Your task to perform on an android device: Go to wifi settings Image 0: 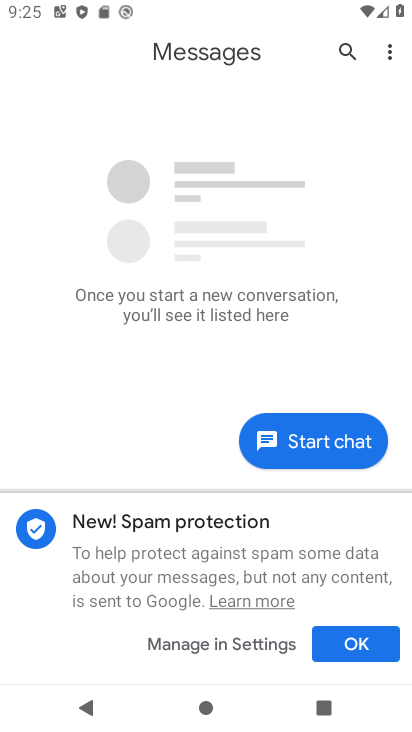
Step 0: press home button
Your task to perform on an android device: Go to wifi settings Image 1: 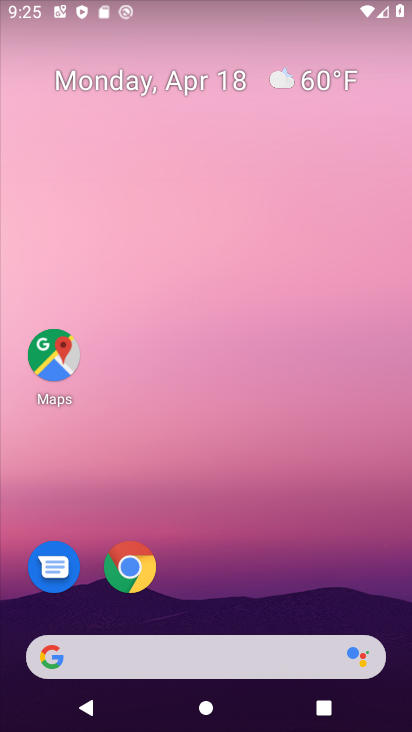
Step 1: drag from (216, 517) to (245, 6)
Your task to perform on an android device: Go to wifi settings Image 2: 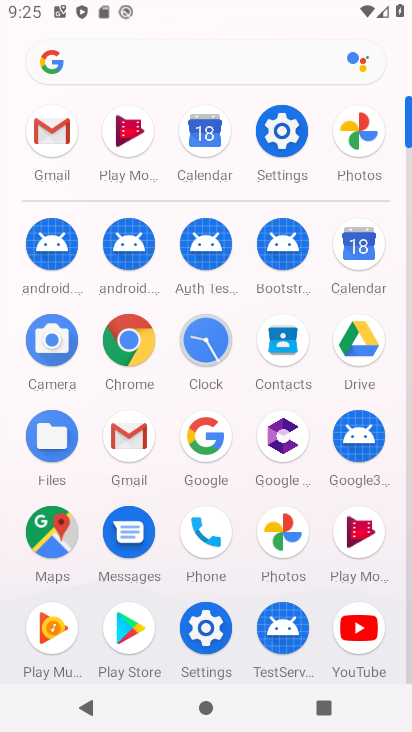
Step 2: click (284, 140)
Your task to perform on an android device: Go to wifi settings Image 3: 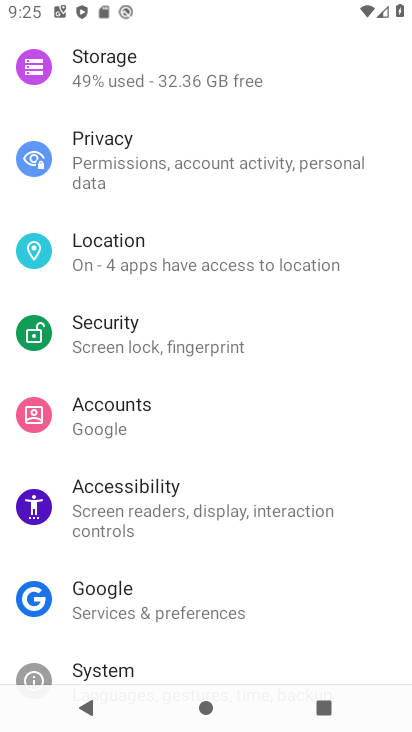
Step 3: drag from (281, 153) to (257, 590)
Your task to perform on an android device: Go to wifi settings Image 4: 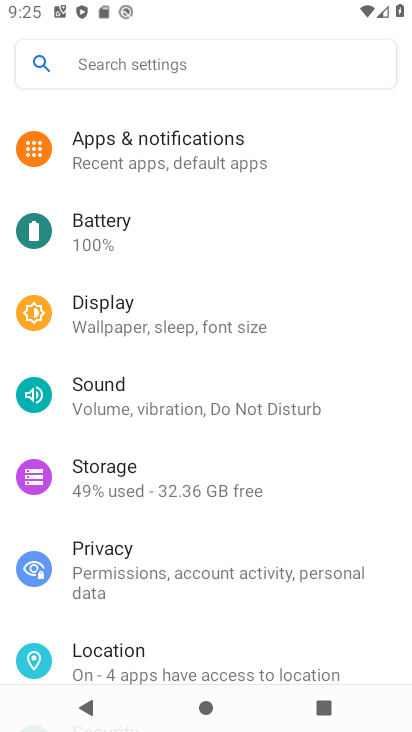
Step 4: drag from (217, 172) to (186, 524)
Your task to perform on an android device: Go to wifi settings Image 5: 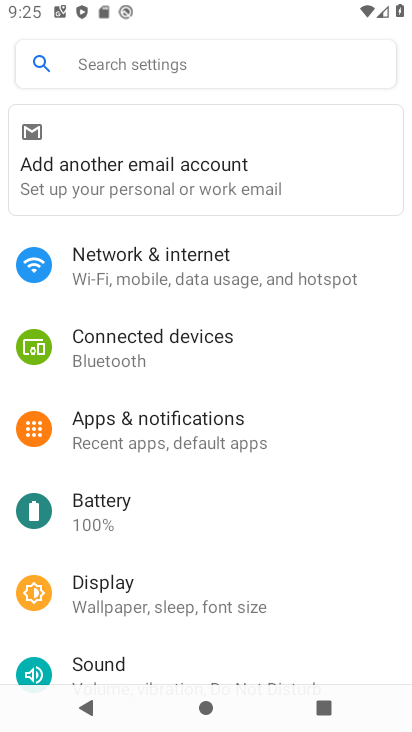
Step 5: click (199, 272)
Your task to perform on an android device: Go to wifi settings Image 6: 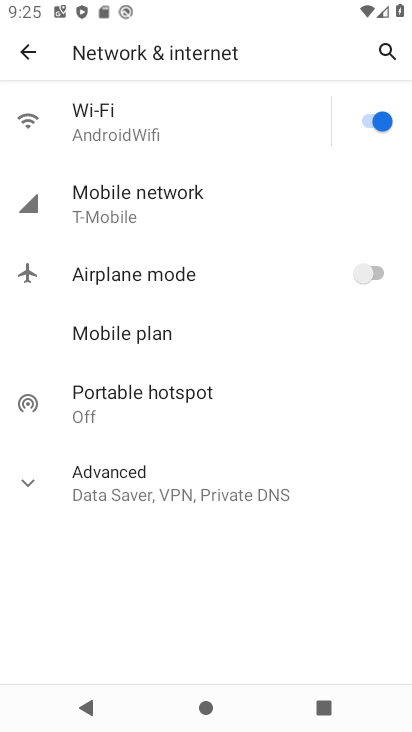
Step 6: click (183, 121)
Your task to perform on an android device: Go to wifi settings Image 7: 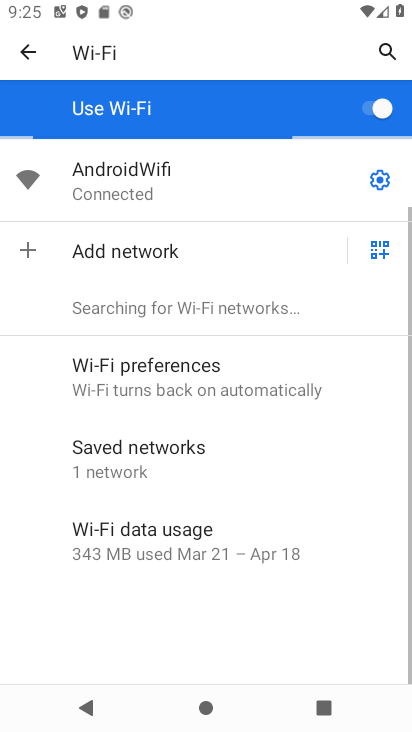
Step 7: task complete